Your task to perform on an android device: toggle airplane mode Image 0: 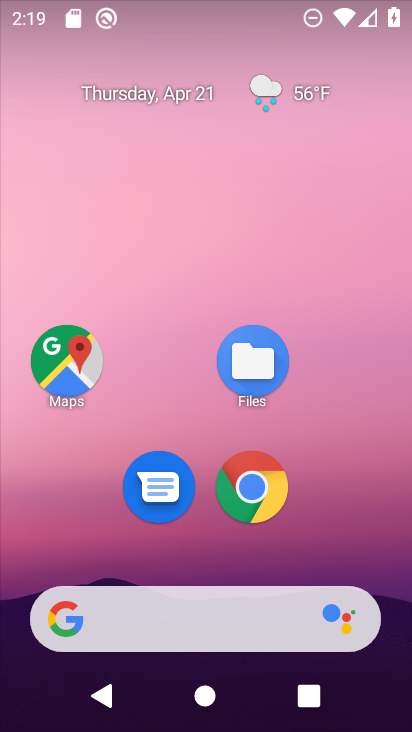
Step 0: drag from (368, 474) to (411, 118)
Your task to perform on an android device: toggle airplane mode Image 1: 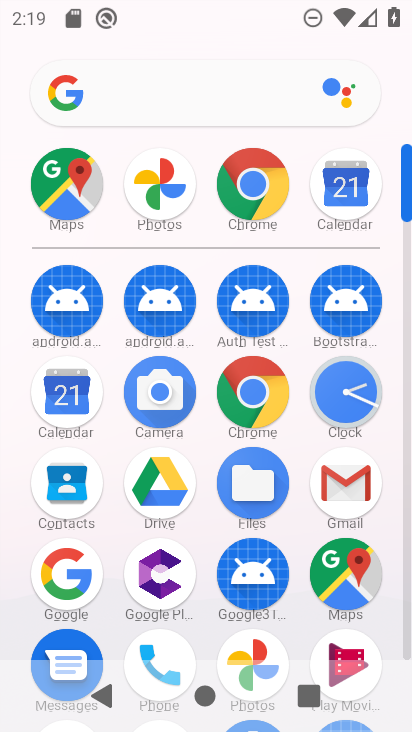
Step 1: drag from (206, 503) to (211, 204)
Your task to perform on an android device: toggle airplane mode Image 2: 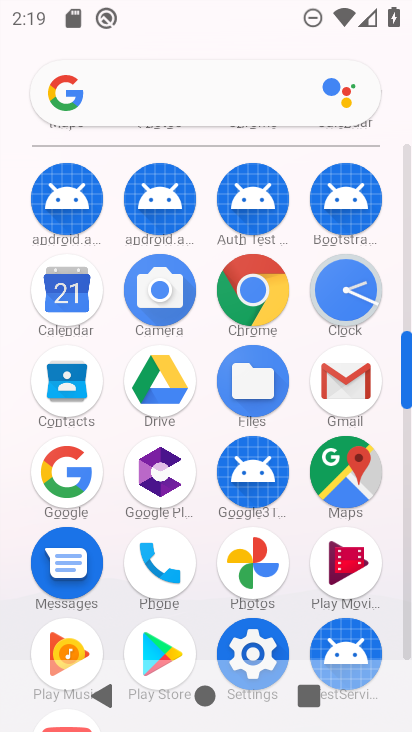
Step 2: click (249, 643)
Your task to perform on an android device: toggle airplane mode Image 3: 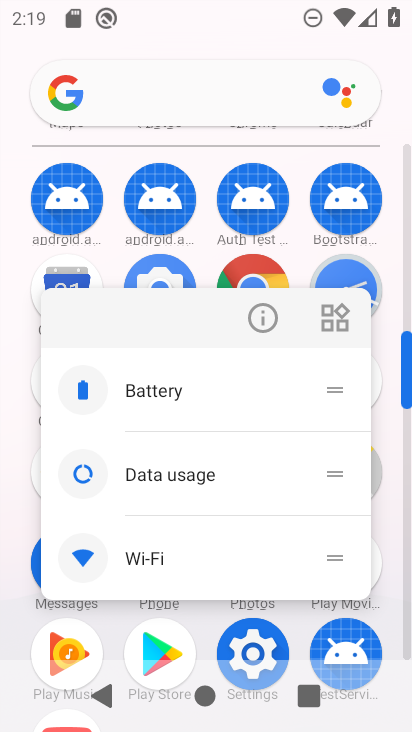
Step 3: click (265, 621)
Your task to perform on an android device: toggle airplane mode Image 4: 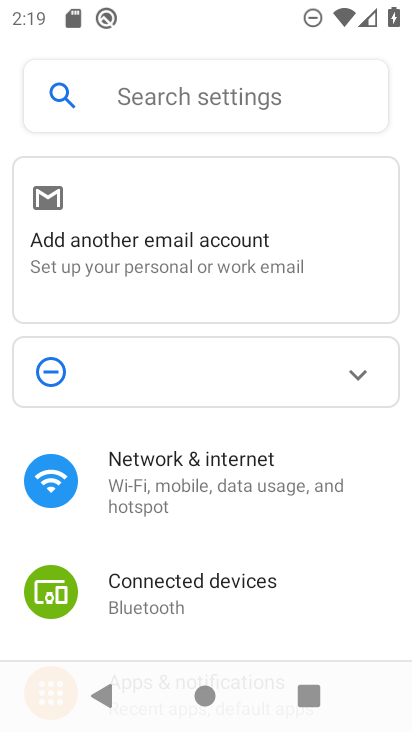
Step 4: click (132, 481)
Your task to perform on an android device: toggle airplane mode Image 5: 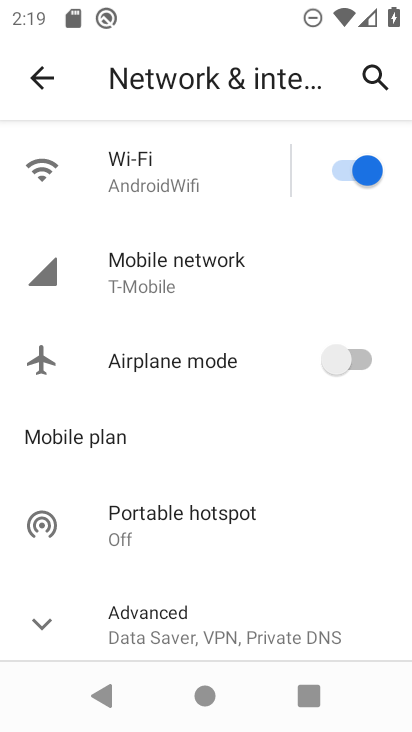
Step 5: click (360, 358)
Your task to perform on an android device: toggle airplane mode Image 6: 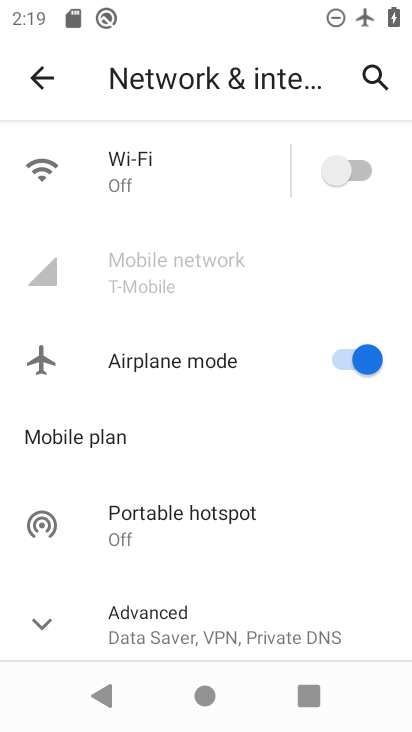
Step 6: task complete